Your task to perform on an android device: Go to privacy settings Image 0: 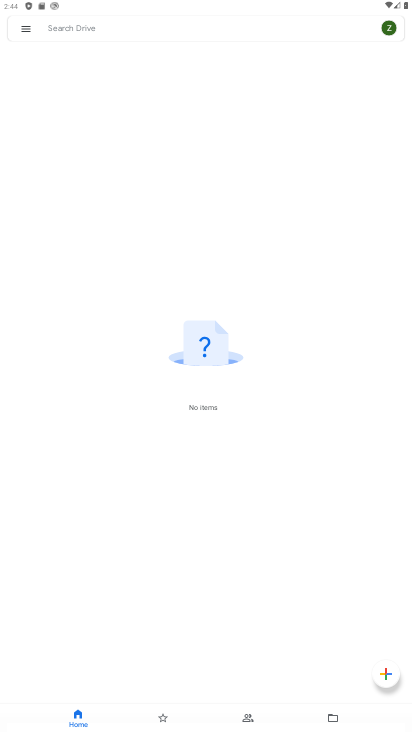
Step 0: press home button
Your task to perform on an android device: Go to privacy settings Image 1: 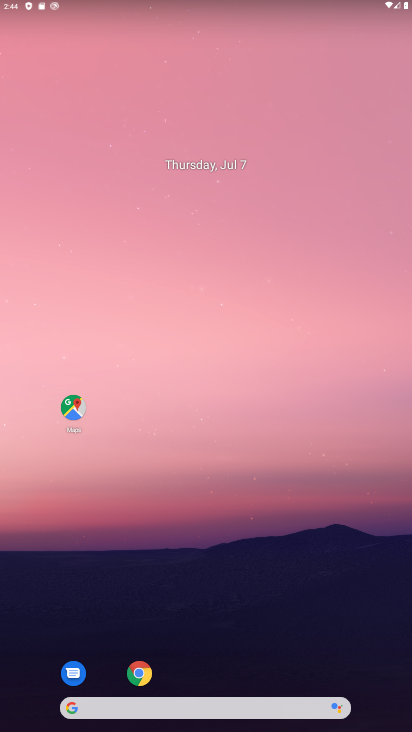
Step 1: drag from (256, 666) to (307, 87)
Your task to perform on an android device: Go to privacy settings Image 2: 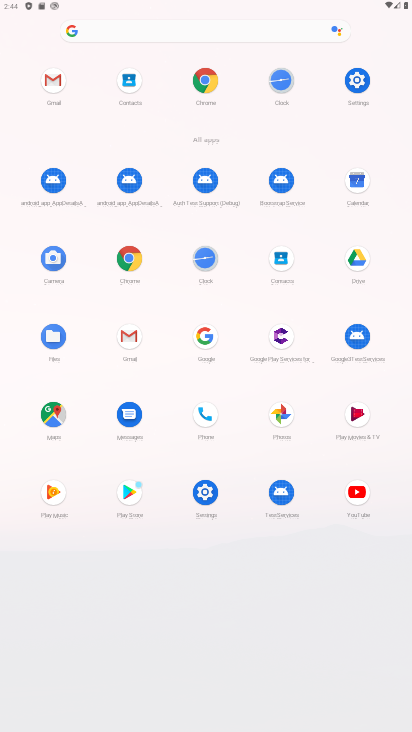
Step 2: click (202, 498)
Your task to perform on an android device: Go to privacy settings Image 3: 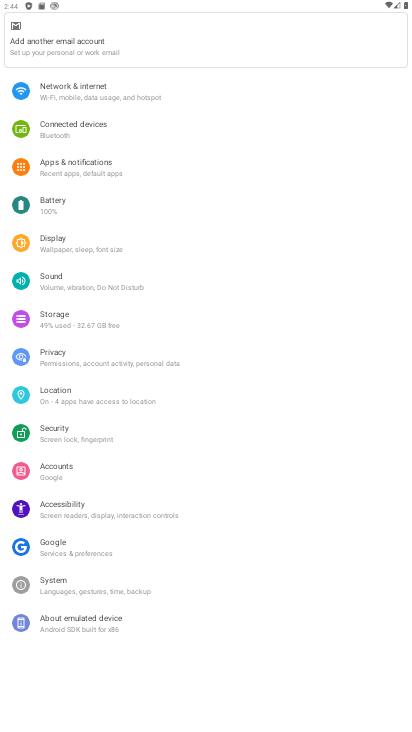
Step 3: click (97, 355)
Your task to perform on an android device: Go to privacy settings Image 4: 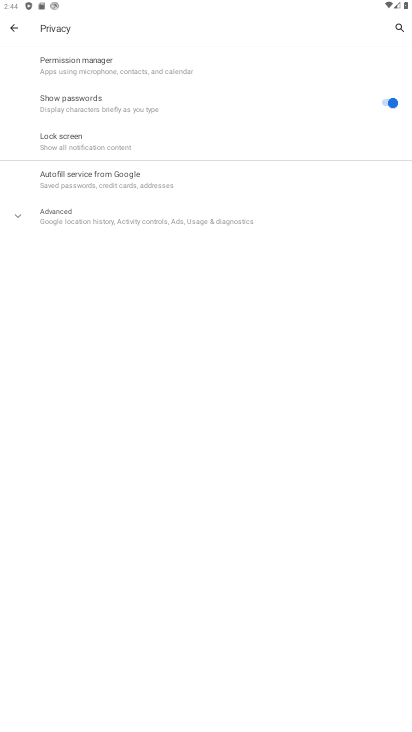
Step 4: task complete